Your task to perform on an android device: Open Google Chrome Image 0: 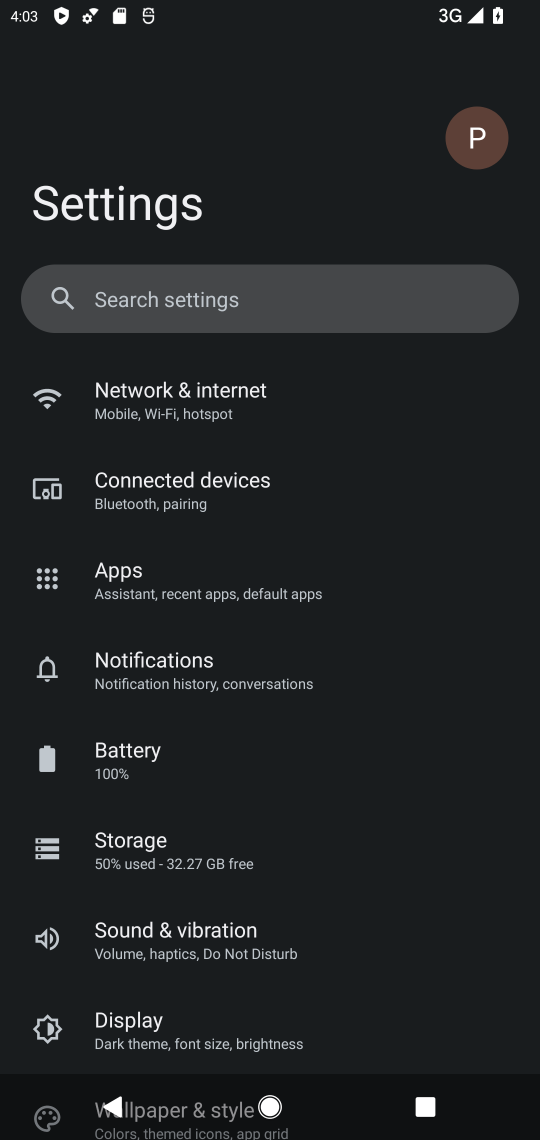
Step 0: press home button
Your task to perform on an android device: Open Google Chrome Image 1: 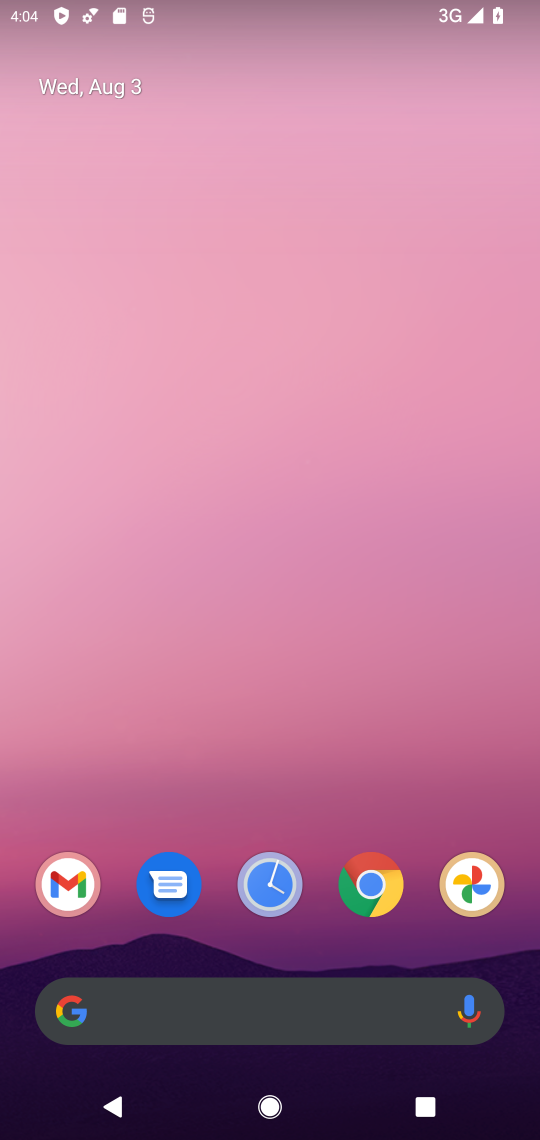
Step 1: click (355, 903)
Your task to perform on an android device: Open Google Chrome Image 2: 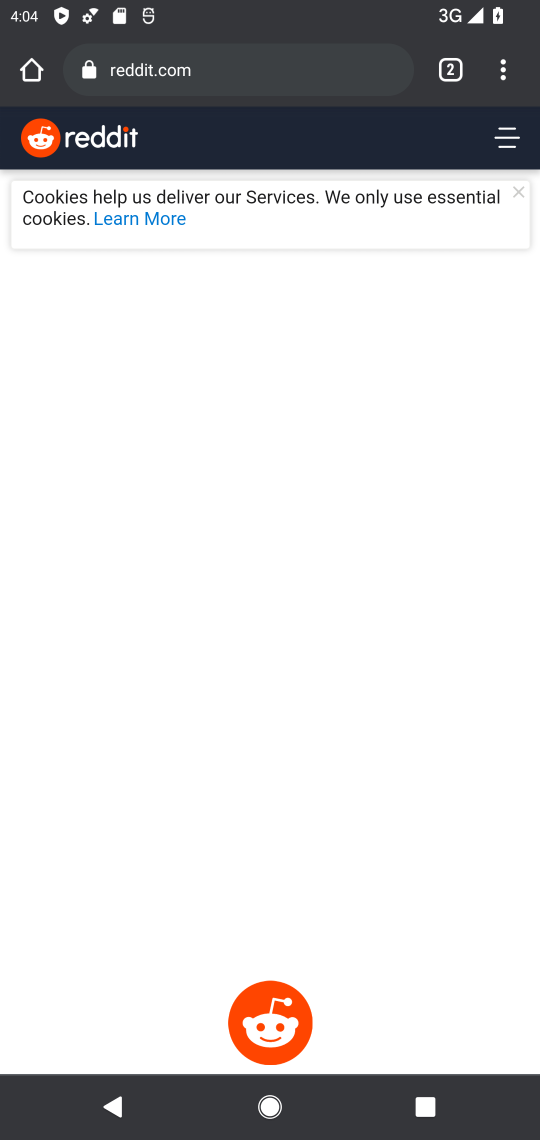
Step 2: task complete